Your task to perform on an android device: Open Chrome and go to settings Image 0: 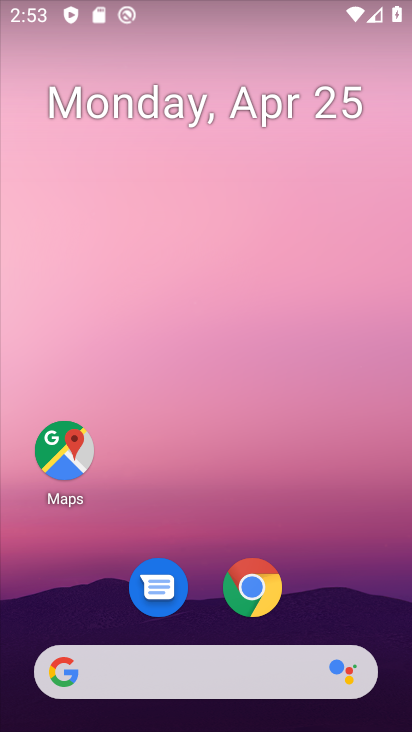
Step 0: drag from (198, 416) to (181, 168)
Your task to perform on an android device: Open Chrome and go to settings Image 1: 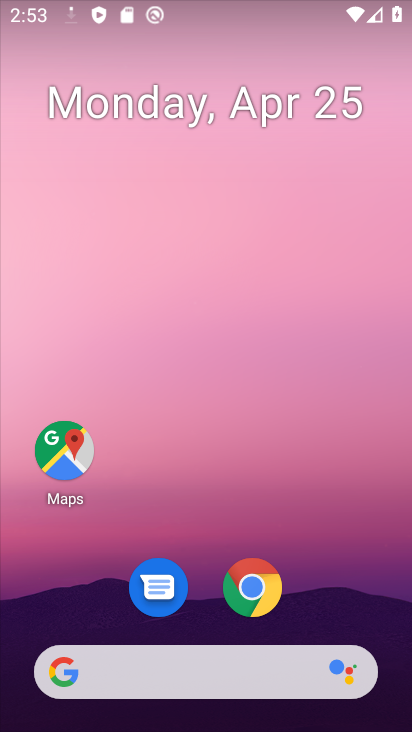
Step 1: drag from (203, 512) to (199, 133)
Your task to perform on an android device: Open Chrome and go to settings Image 2: 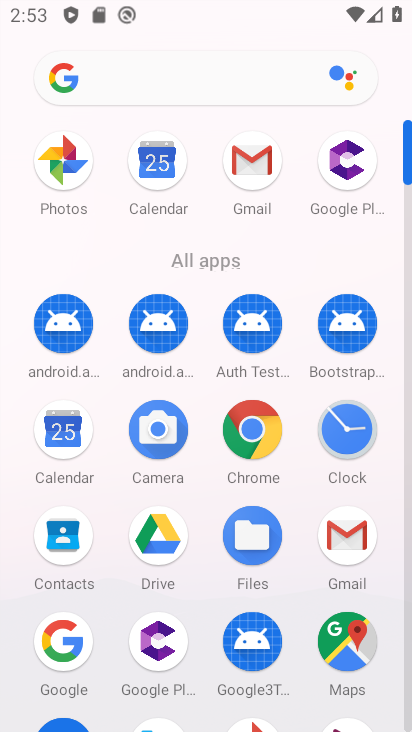
Step 2: drag from (204, 616) to (192, 256)
Your task to perform on an android device: Open Chrome and go to settings Image 3: 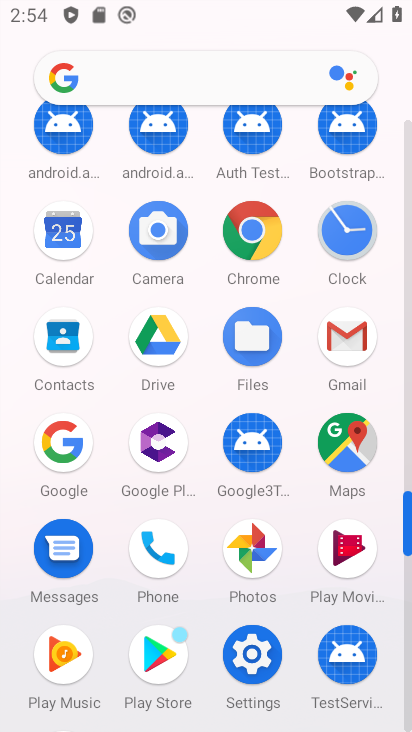
Step 3: click (257, 658)
Your task to perform on an android device: Open Chrome and go to settings Image 4: 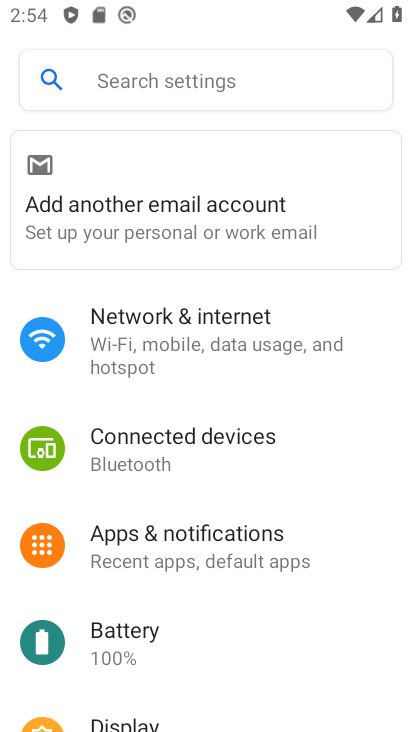
Step 4: task complete